Your task to perform on an android device: Open network settings Image 0: 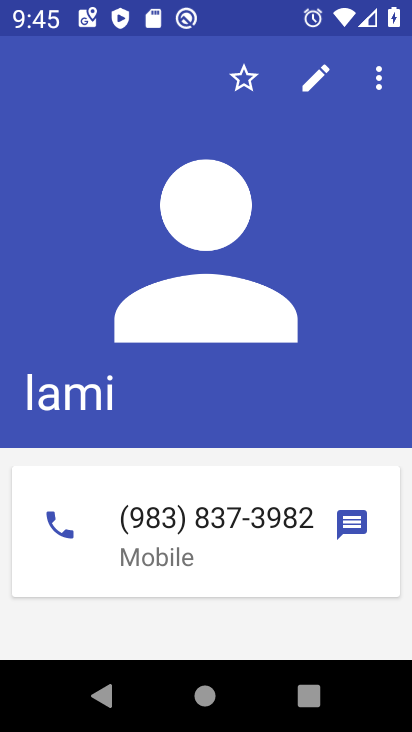
Step 0: press home button
Your task to perform on an android device: Open network settings Image 1: 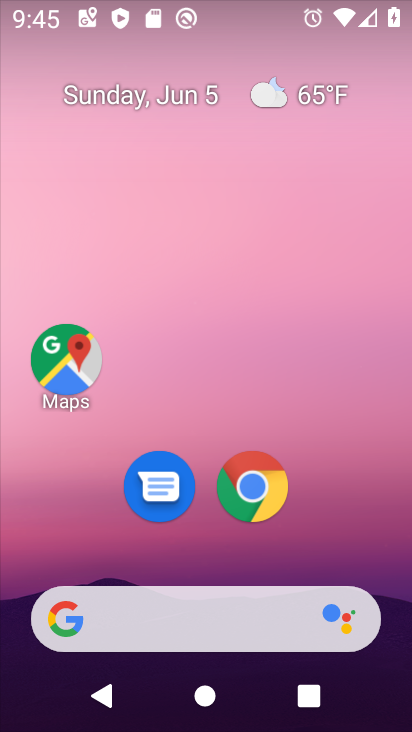
Step 1: drag from (359, 485) to (324, 13)
Your task to perform on an android device: Open network settings Image 2: 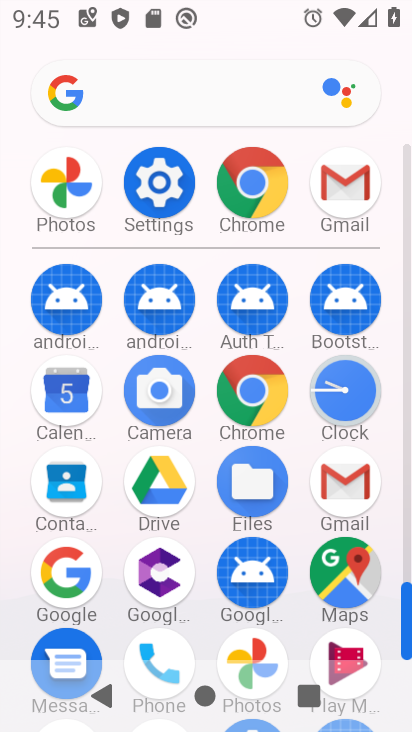
Step 2: click (166, 194)
Your task to perform on an android device: Open network settings Image 3: 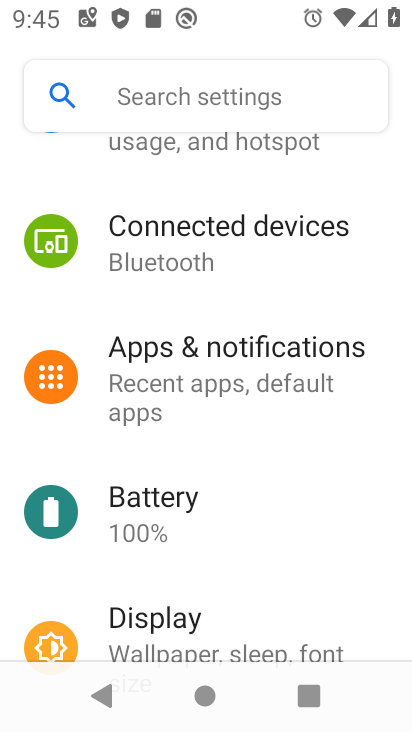
Step 3: drag from (284, 234) to (236, 667)
Your task to perform on an android device: Open network settings Image 4: 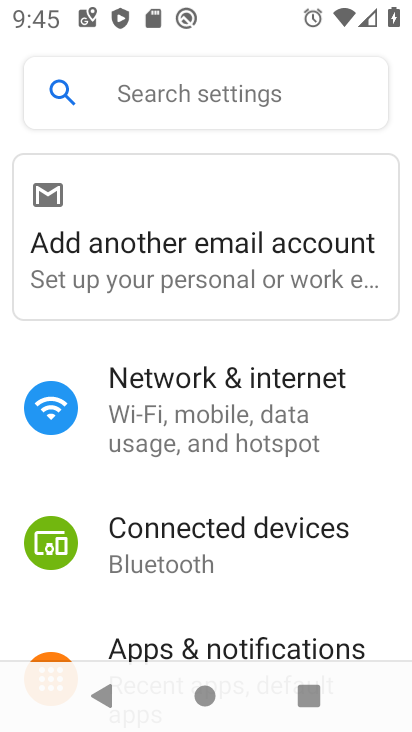
Step 4: click (207, 401)
Your task to perform on an android device: Open network settings Image 5: 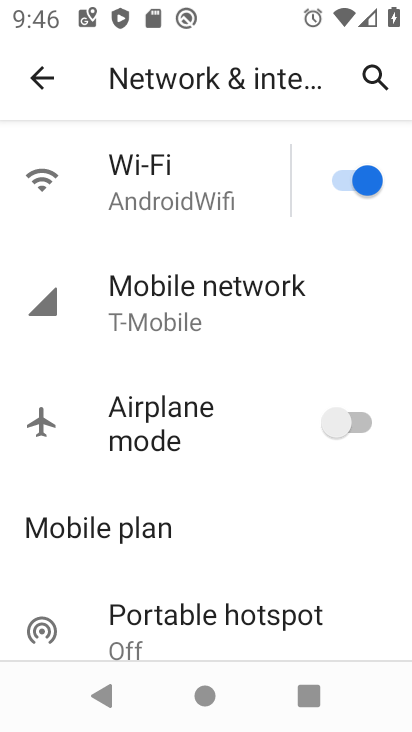
Step 5: click (155, 263)
Your task to perform on an android device: Open network settings Image 6: 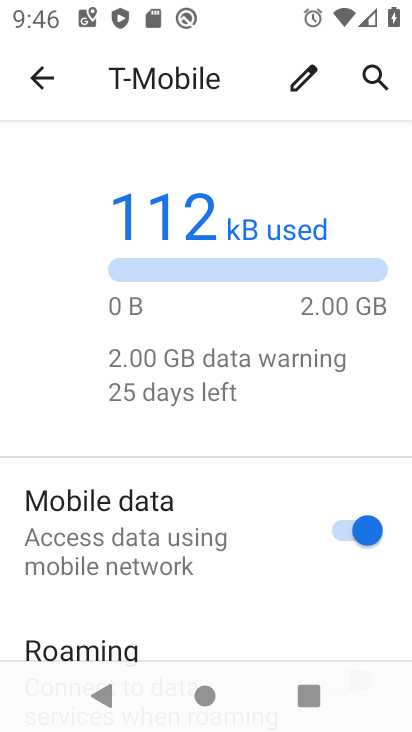
Step 6: task complete